Your task to perform on an android device: Go to sound settings Image 0: 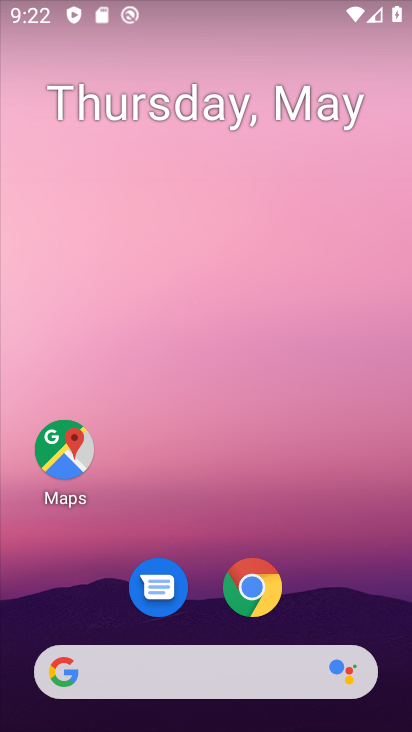
Step 0: drag from (341, 615) to (285, 0)
Your task to perform on an android device: Go to sound settings Image 1: 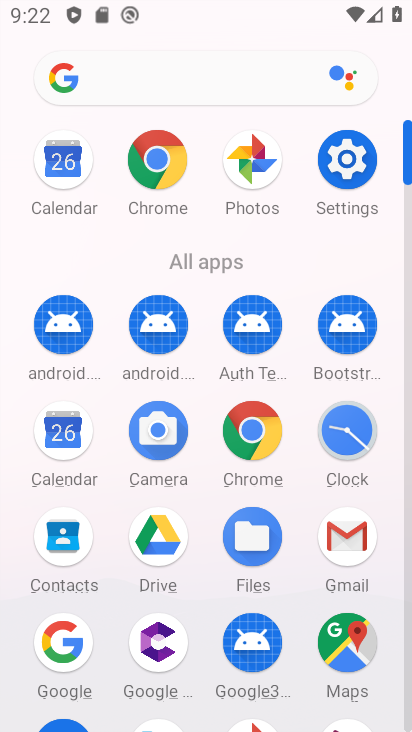
Step 1: click (339, 154)
Your task to perform on an android device: Go to sound settings Image 2: 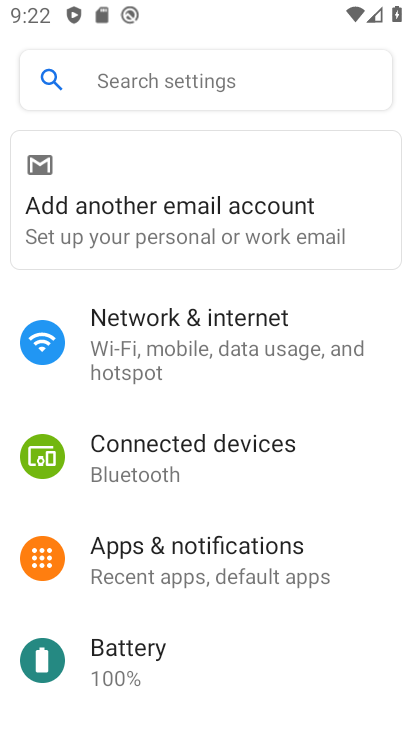
Step 2: drag from (287, 651) to (246, 162)
Your task to perform on an android device: Go to sound settings Image 3: 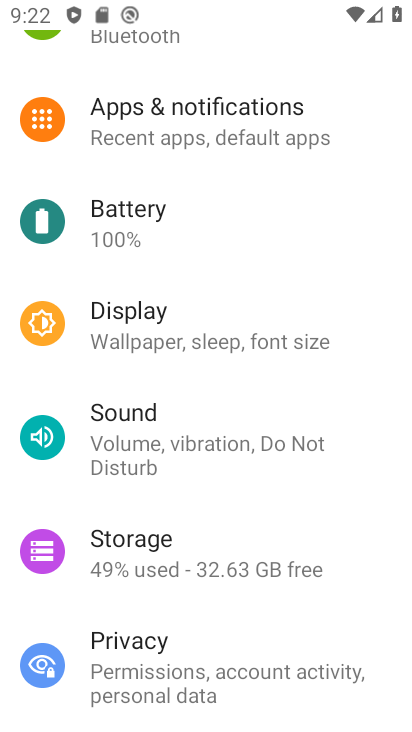
Step 3: click (132, 420)
Your task to perform on an android device: Go to sound settings Image 4: 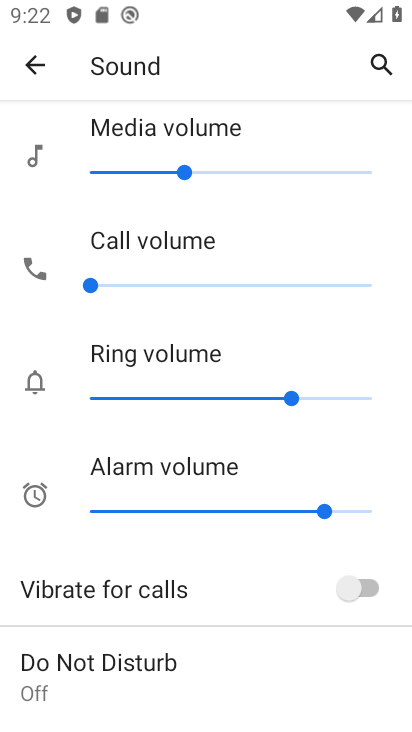
Step 4: task complete